Your task to perform on an android device: Open Google Chrome and click the shortcut for Amazon.com Image 0: 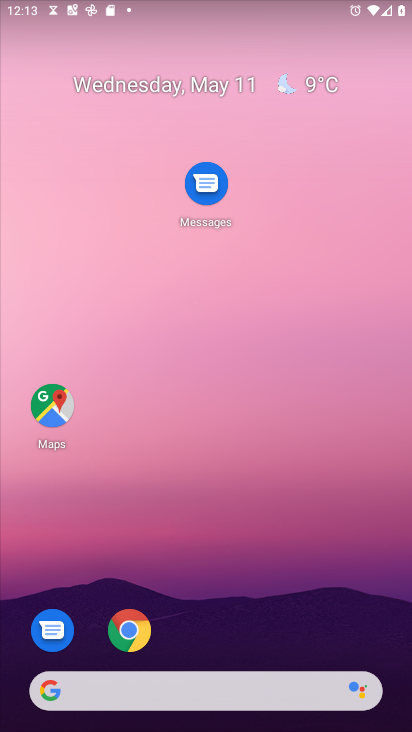
Step 0: click (120, 626)
Your task to perform on an android device: Open Google Chrome and click the shortcut for Amazon.com Image 1: 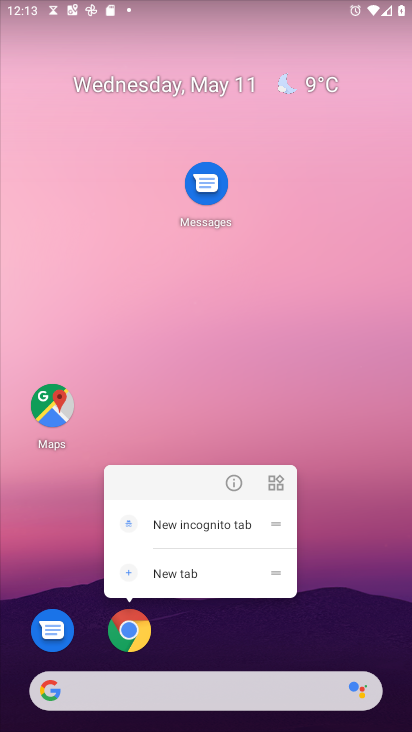
Step 1: click (122, 626)
Your task to perform on an android device: Open Google Chrome and click the shortcut for Amazon.com Image 2: 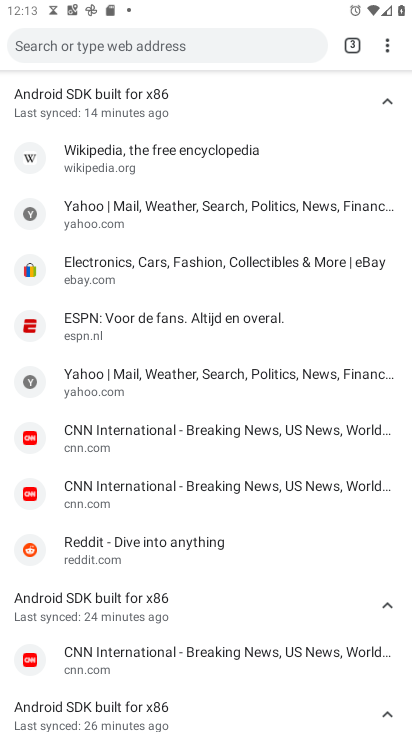
Step 2: click (355, 38)
Your task to perform on an android device: Open Google Chrome and click the shortcut for Amazon.com Image 3: 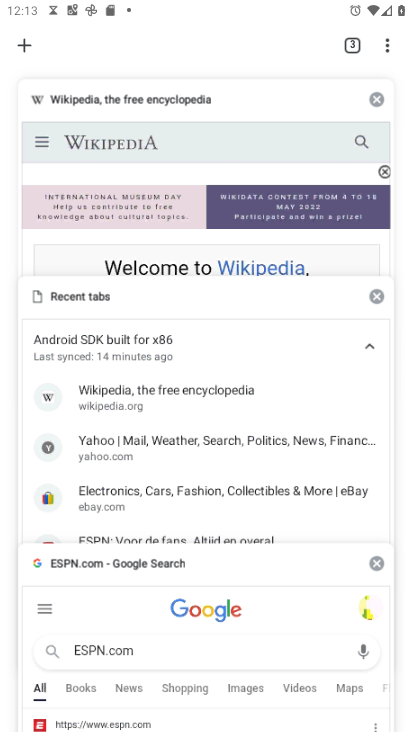
Step 3: click (377, 294)
Your task to perform on an android device: Open Google Chrome and click the shortcut for Amazon.com Image 4: 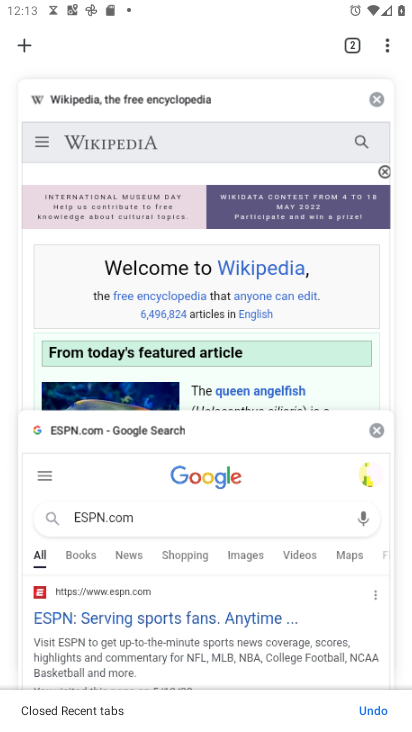
Step 4: click (379, 426)
Your task to perform on an android device: Open Google Chrome and click the shortcut for Amazon.com Image 5: 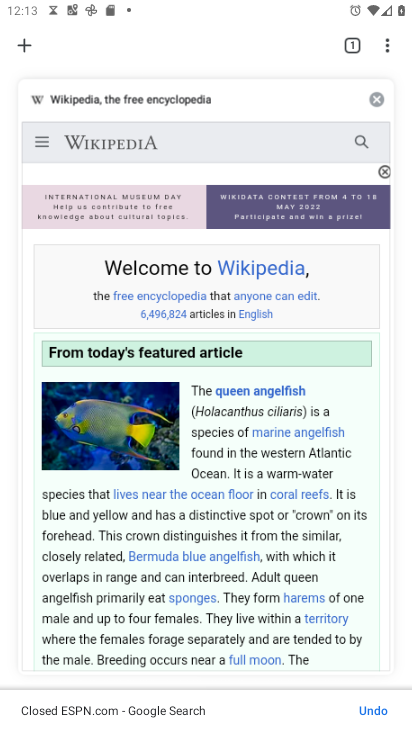
Step 5: click (382, 170)
Your task to perform on an android device: Open Google Chrome and click the shortcut for Amazon.com Image 6: 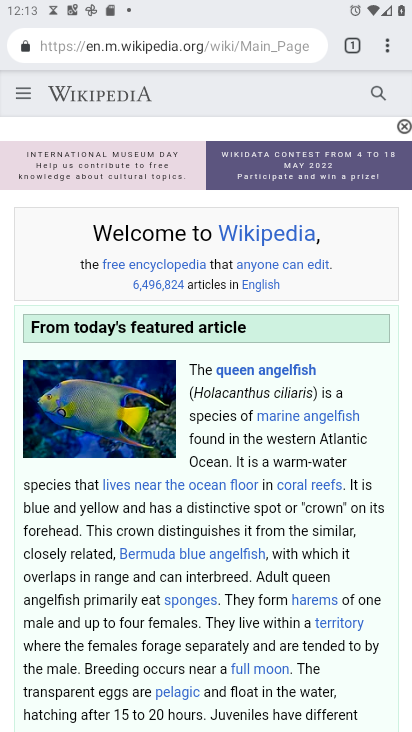
Step 6: click (239, 31)
Your task to perform on an android device: Open Google Chrome and click the shortcut for Amazon.com Image 7: 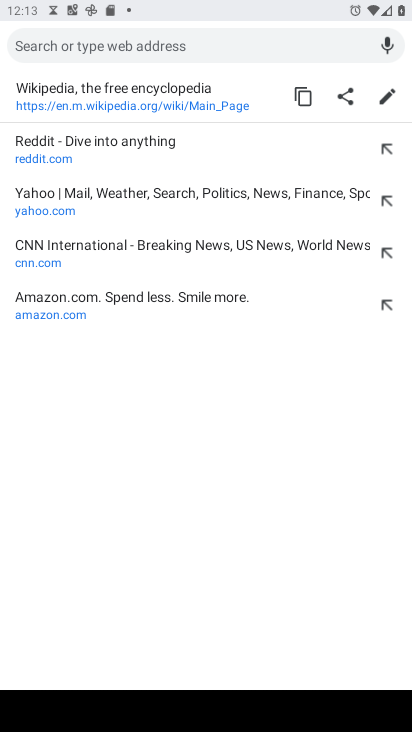
Step 7: click (257, 41)
Your task to perform on an android device: Open Google Chrome and click the shortcut for Amazon.com Image 8: 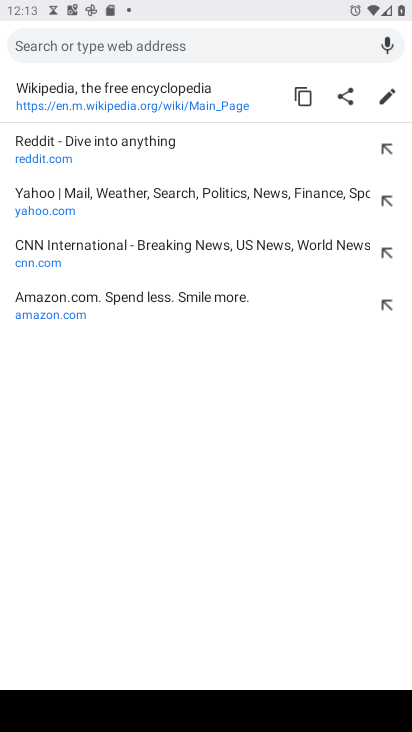
Step 8: press back button
Your task to perform on an android device: Open Google Chrome and click the shortcut for Amazon.com Image 9: 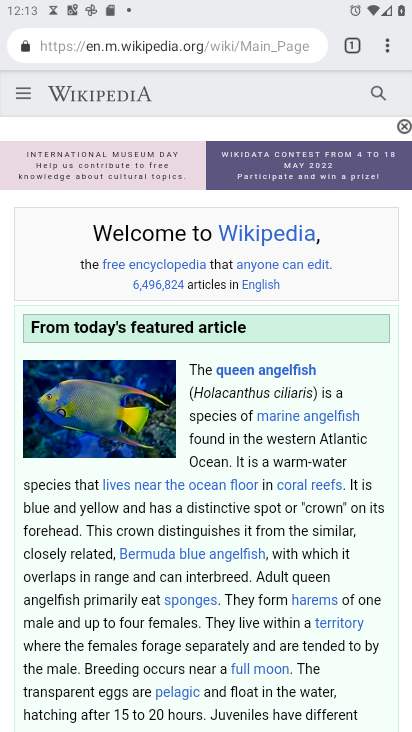
Step 9: press back button
Your task to perform on an android device: Open Google Chrome and click the shortcut for Amazon.com Image 10: 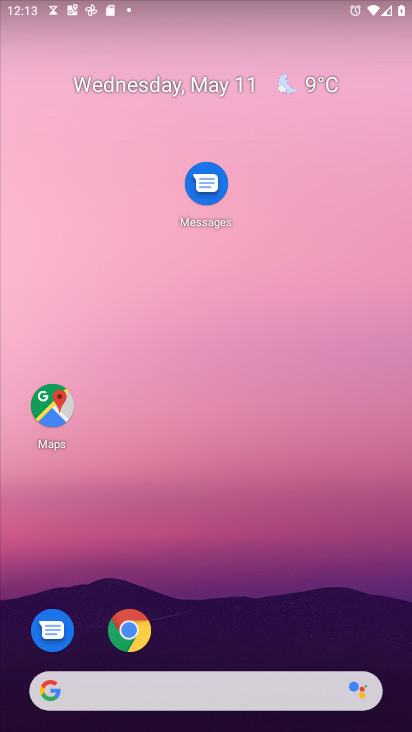
Step 10: click (141, 614)
Your task to perform on an android device: Open Google Chrome and click the shortcut for Amazon.com Image 11: 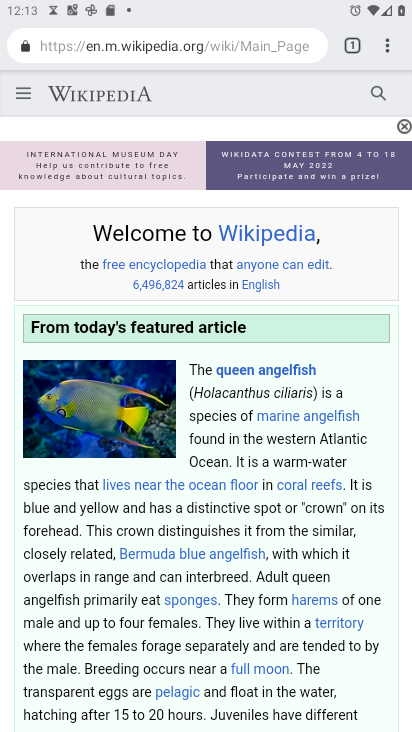
Step 11: click (353, 43)
Your task to perform on an android device: Open Google Chrome and click the shortcut for Amazon.com Image 12: 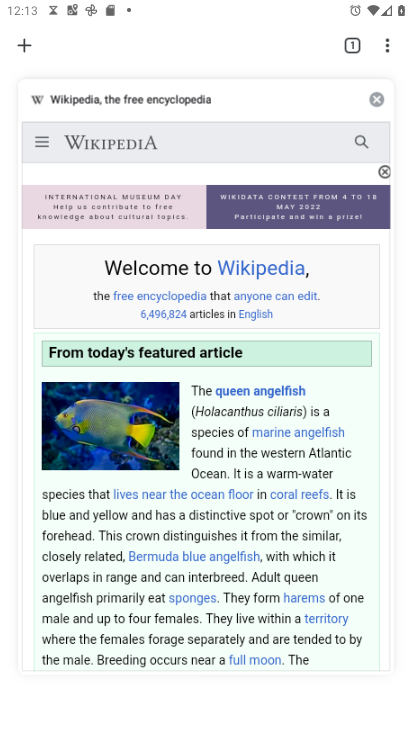
Step 12: click (376, 96)
Your task to perform on an android device: Open Google Chrome and click the shortcut for Amazon.com Image 13: 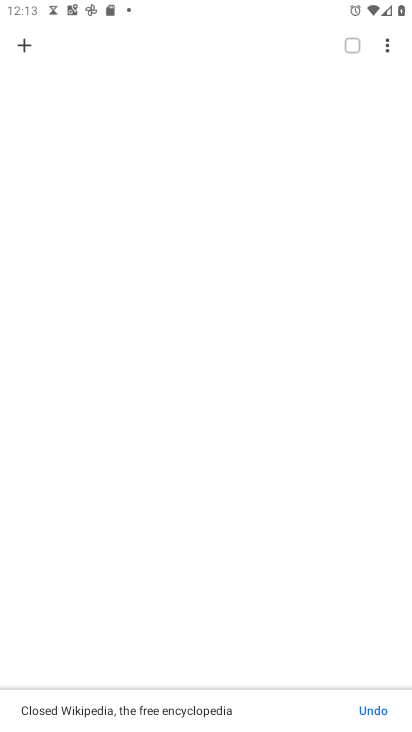
Step 13: click (17, 38)
Your task to perform on an android device: Open Google Chrome and click the shortcut for Amazon.com Image 14: 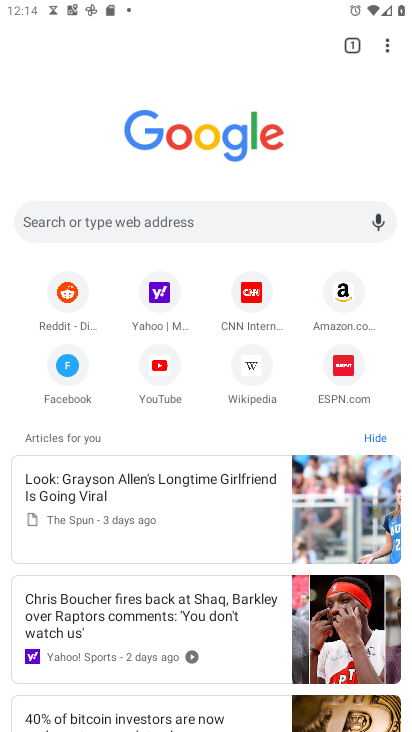
Step 14: click (338, 305)
Your task to perform on an android device: Open Google Chrome and click the shortcut for Amazon.com Image 15: 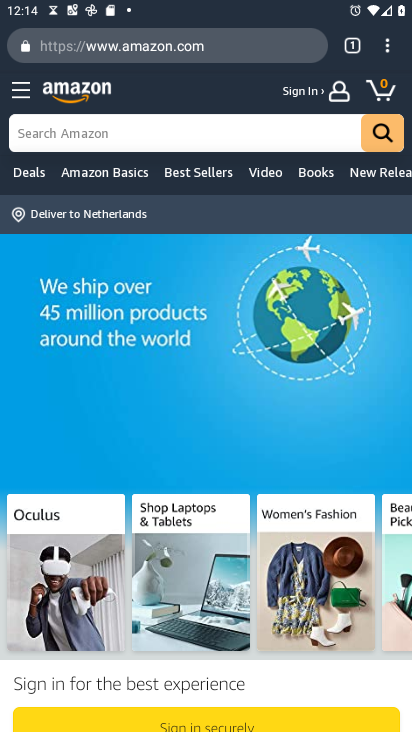
Step 15: task complete